Your task to perform on an android device: Turn off the flashlight Image 0: 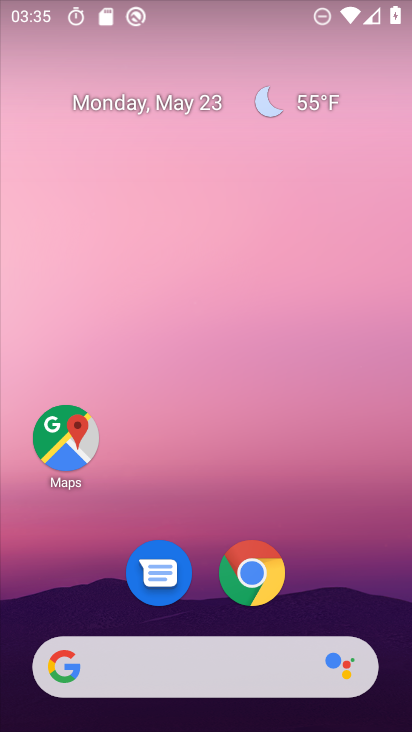
Step 0: drag from (368, 541) to (291, 62)
Your task to perform on an android device: Turn off the flashlight Image 1: 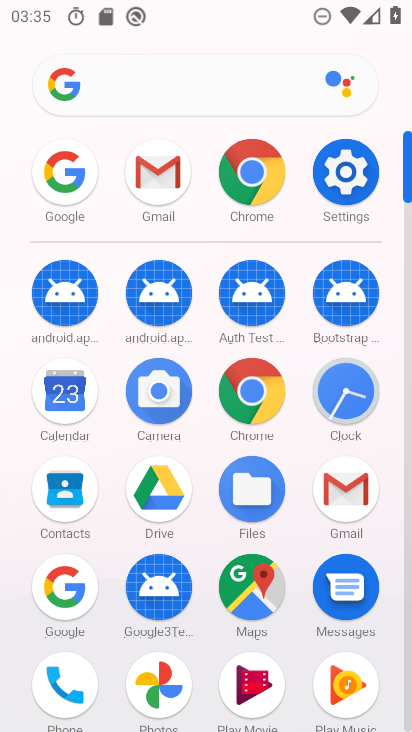
Step 1: click (354, 174)
Your task to perform on an android device: Turn off the flashlight Image 2: 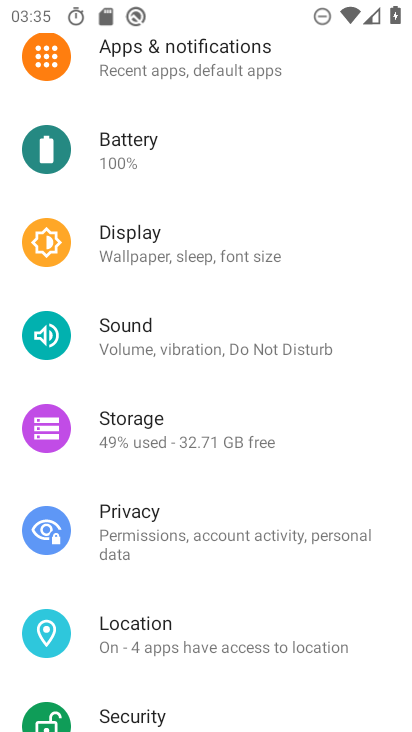
Step 2: click (224, 49)
Your task to perform on an android device: Turn off the flashlight Image 3: 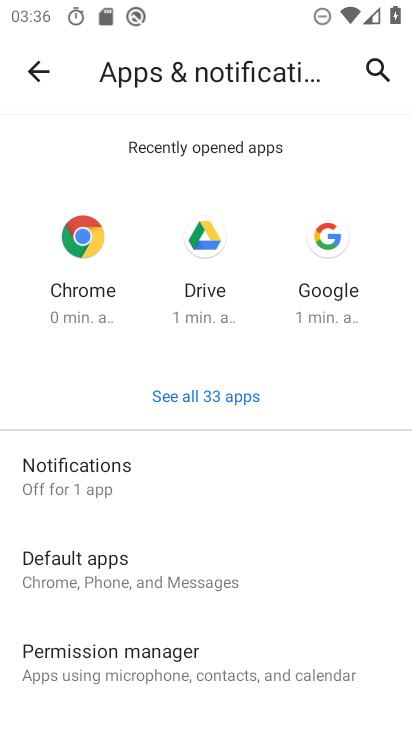
Step 3: drag from (277, 599) to (265, 167)
Your task to perform on an android device: Turn off the flashlight Image 4: 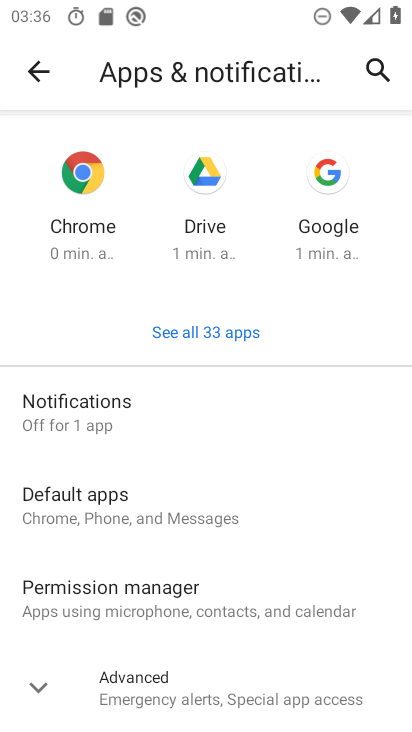
Step 4: click (249, 687)
Your task to perform on an android device: Turn off the flashlight Image 5: 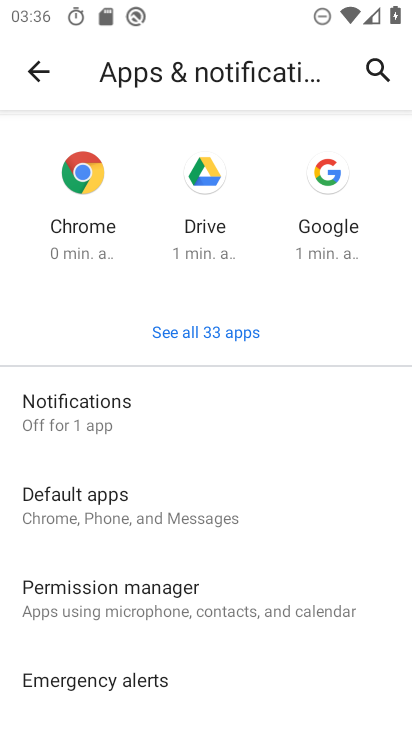
Step 5: task complete